Your task to perform on an android device: check google app version Image 0: 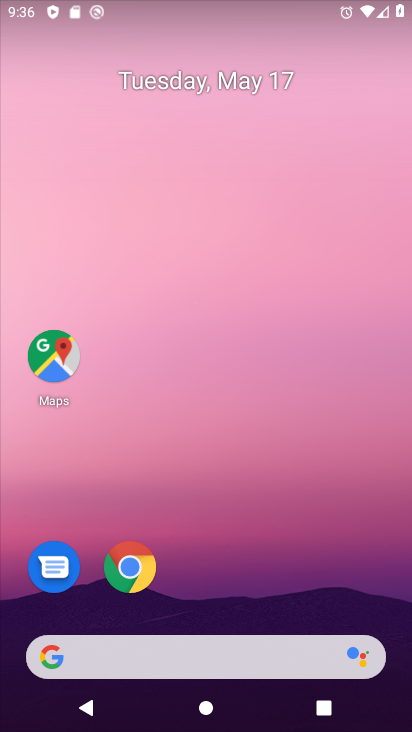
Step 0: click (52, 657)
Your task to perform on an android device: check google app version Image 1: 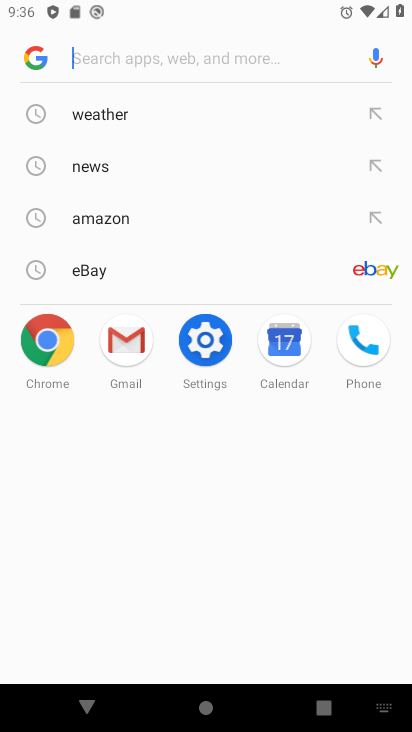
Step 1: click (46, 60)
Your task to perform on an android device: check google app version Image 2: 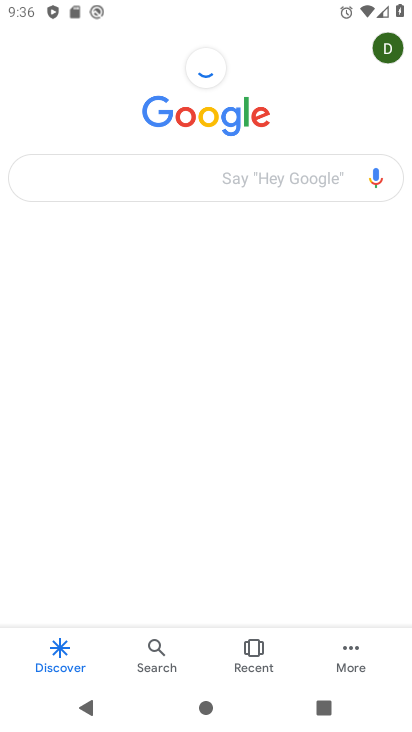
Step 2: click (349, 660)
Your task to perform on an android device: check google app version Image 3: 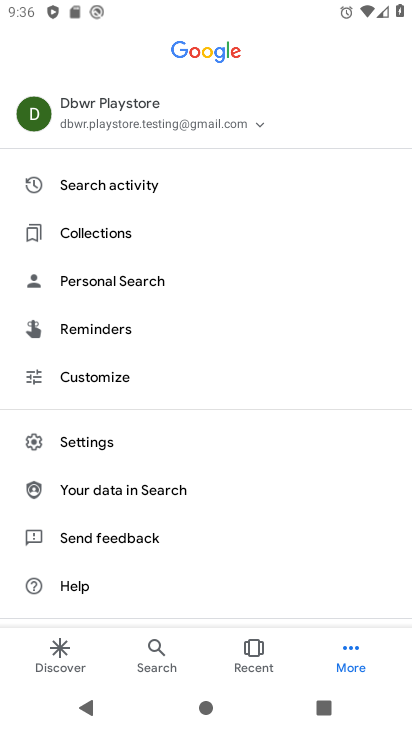
Step 3: click (90, 437)
Your task to perform on an android device: check google app version Image 4: 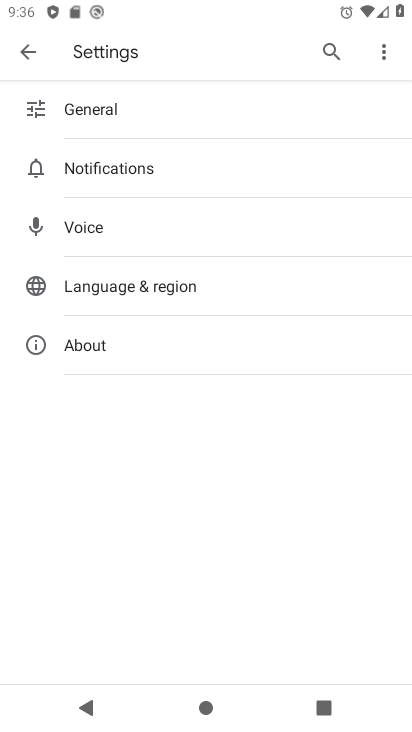
Step 4: click (82, 338)
Your task to perform on an android device: check google app version Image 5: 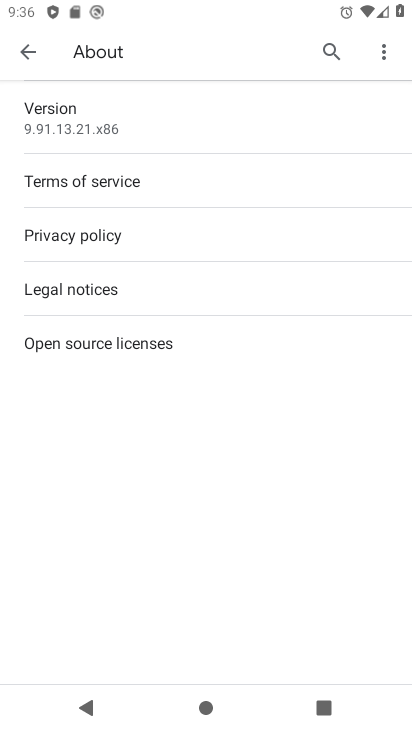
Step 5: task complete